Your task to perform on an android device: Open Google Maps and go to "Timeline" Image 0: 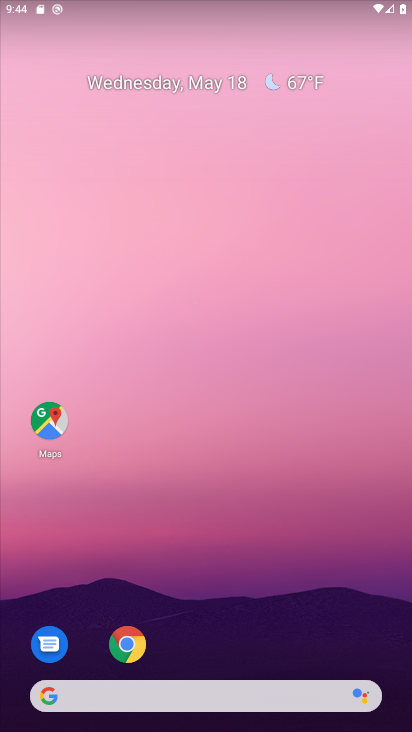
Step 0: click (49, 421)
Your task to perform on an android device: Open Google Maps and go to "Timeline" Image 1: 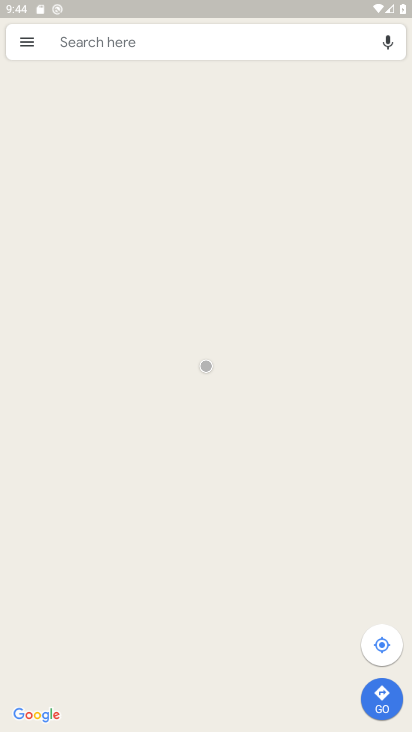
Step 1: click (30, 42)
Your task to perform on an android device: Open Google Maps and go to "Timeline" Image 2: 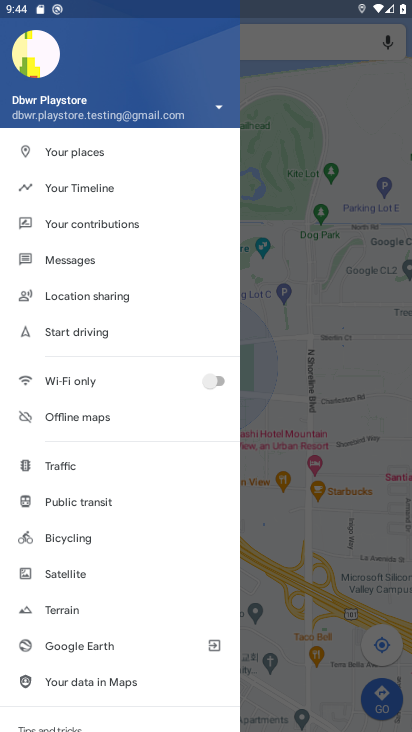
Step 2: click (63, 190)
Your task to perform on an android device: Open Google Maps and go to "Timeline" Image 3: 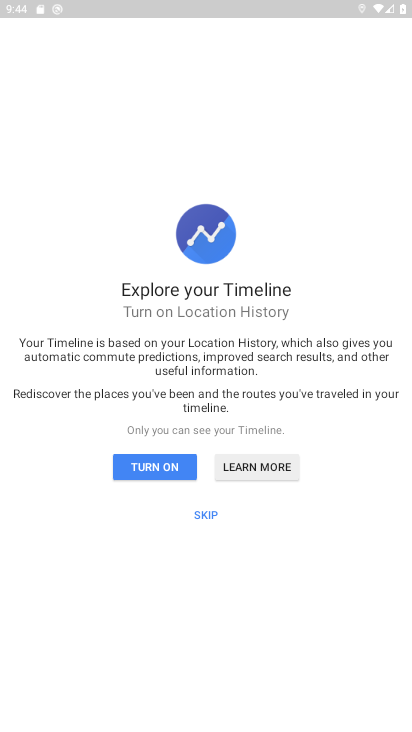
Step 3: click (206, 516)
Your task to perform on an android device: Open Google Maps and go to "Timeline" Image 4: 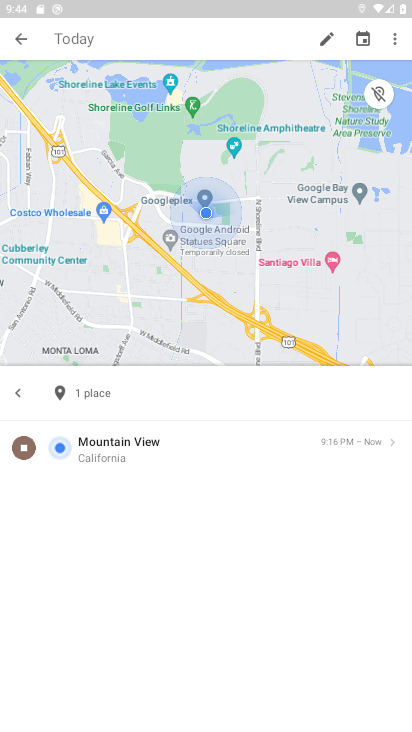
Step 4: task complete